Your task to perform on an android device: open a bookmark in the chrome app Image 0: 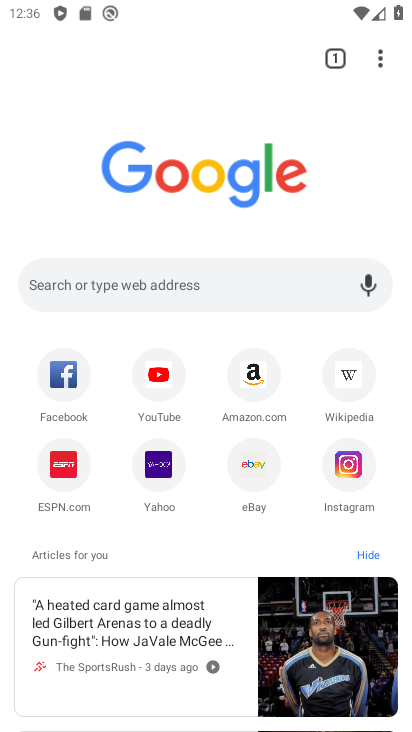
Step 0: click (380, 60)
Your task to perform on an android device: open a bookmark in the chrome app Image 1: 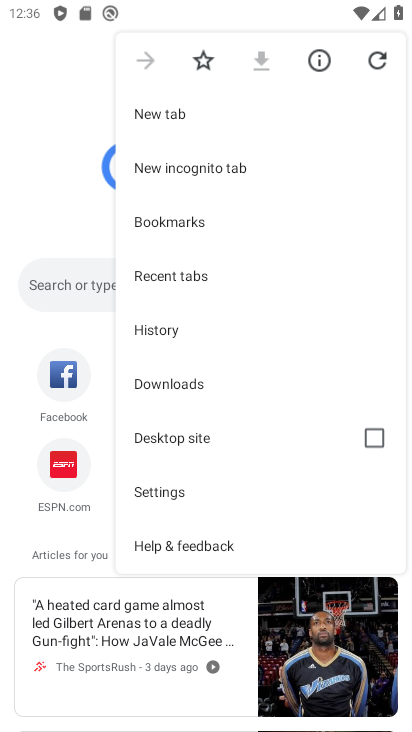
Step 1: click (196, 222)
Your task to perform on an android device: open a bookmark in the chrome app Image 2: 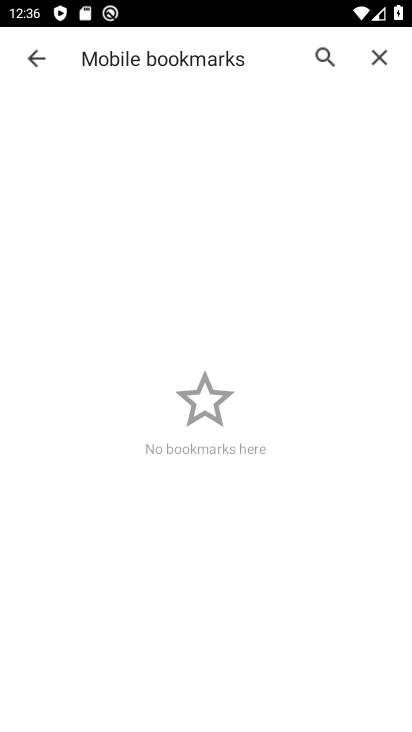
Step 2: task complete